Your task to perform on an android device: open sync settings in chrome Image 0: 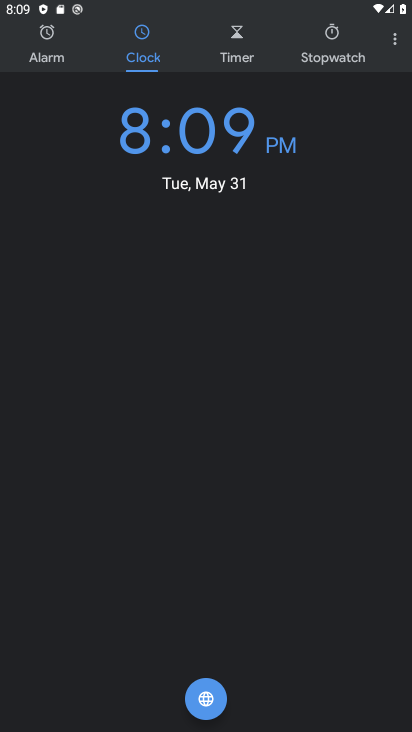
Step 0: press home button
Your task to perform on an android device: open sync settings in chrome Image 1: 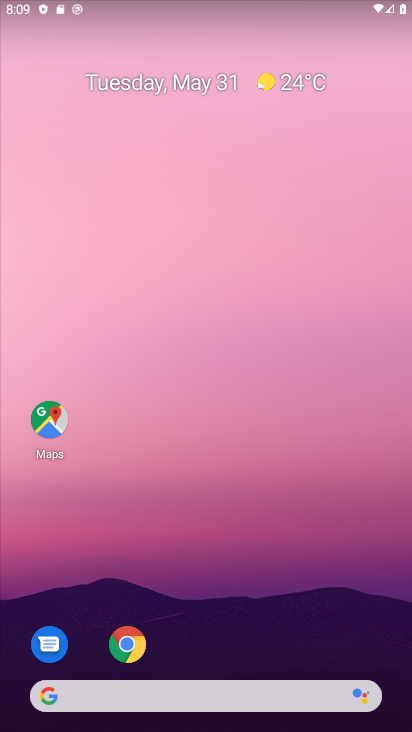
Step 1: drag from (353, 538) to (283, 44)
Your task to perform on an android device: open sync settings in chrome Image 2: 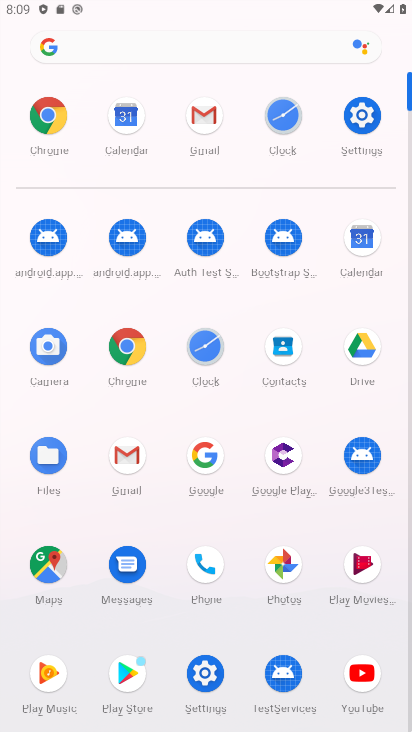
Step 2: click (115, 350)
Your task to perform on an android device: open sync settings in chrome Image 3: 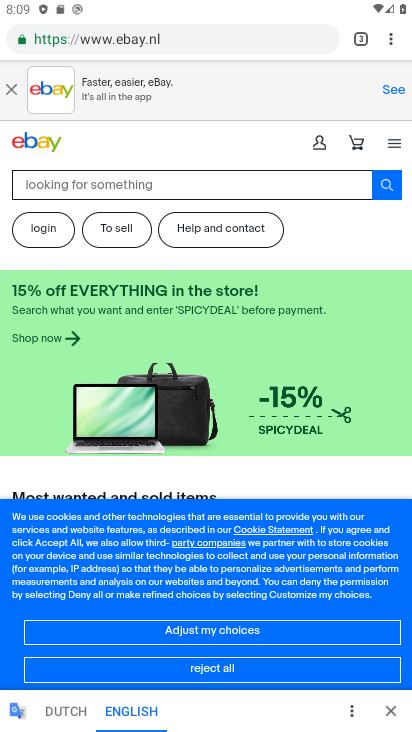
Step 3: drag from (388, 36) to (310, 460)
Your task to perform on an android device: open sync settings in chrome Image 4: 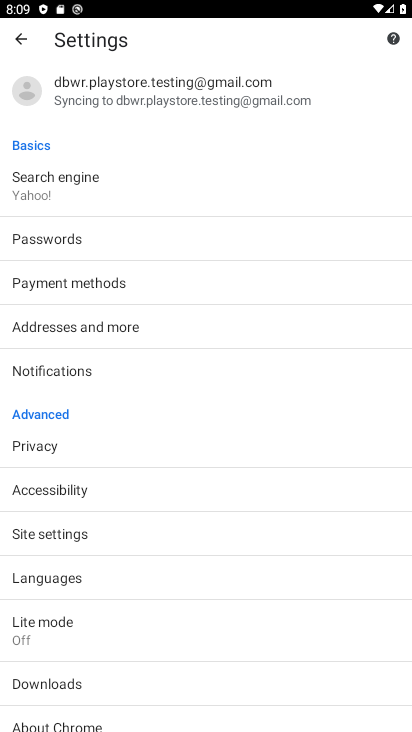
Step 4: click (132, 534)
Your task to perform on an android device: open sync settings in chrome Image 5: 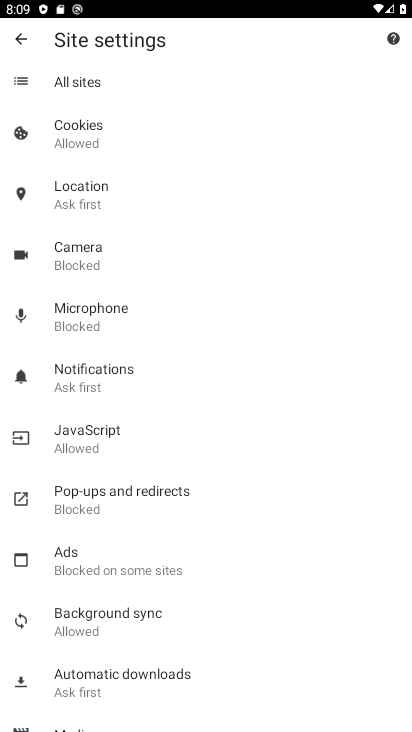
Step 5: click (146, 620)
Your task to perform on an android device: open sync settings in chrome Image 6: 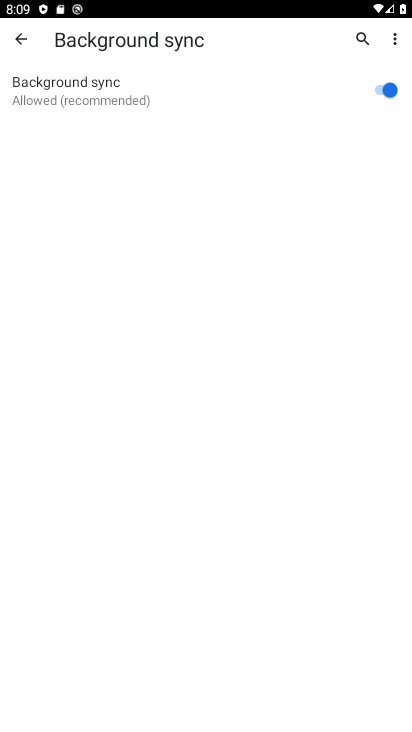
Step 6: task complete